Your task to perform on an android device: Open privacy settings Image 0: 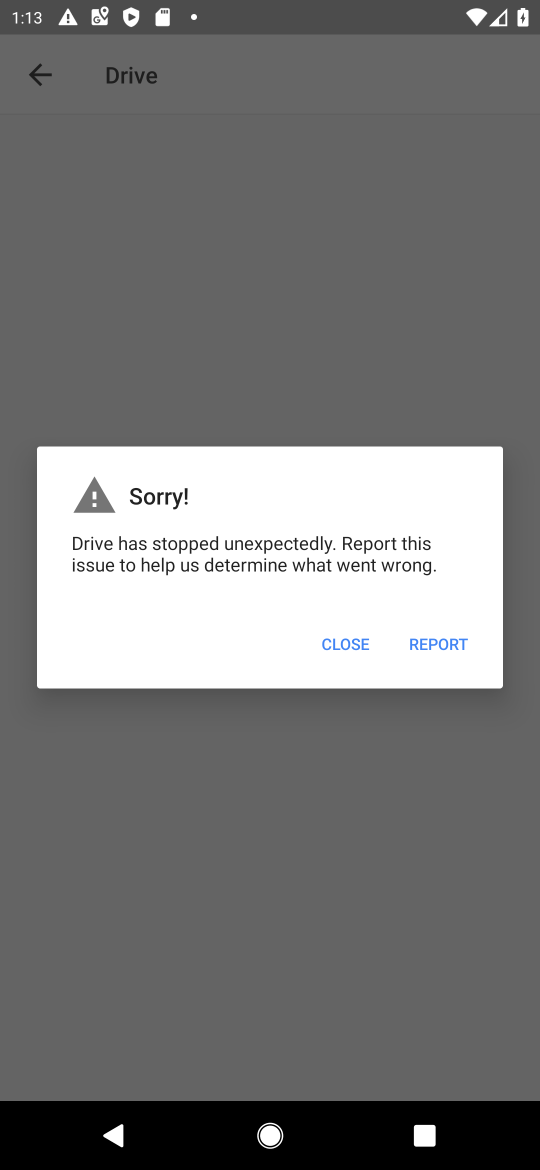
Step 0: press home button
Your task to perform on an android device: Open privacy settings Image 1: 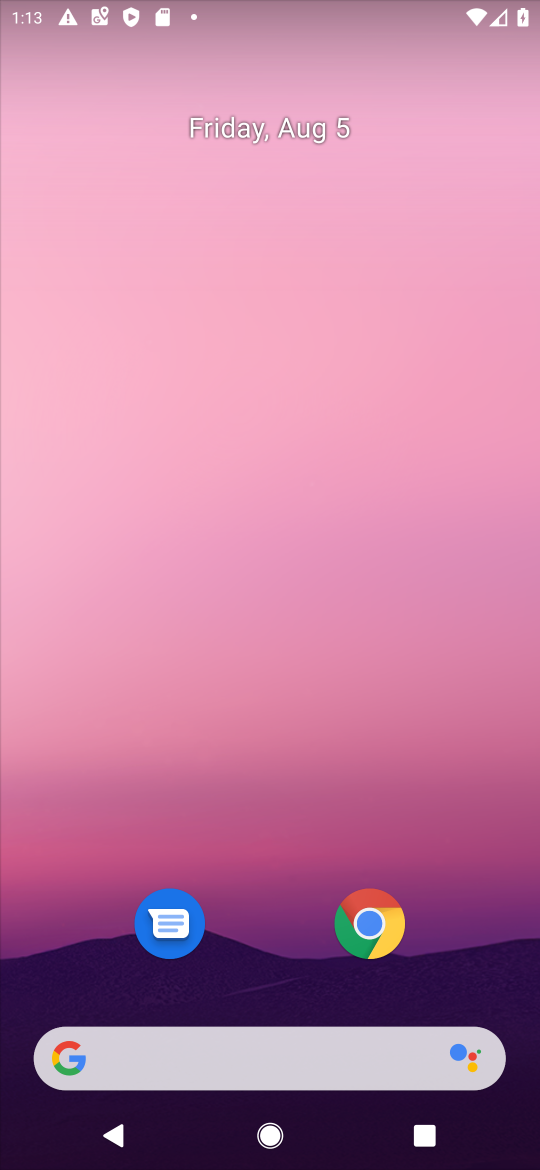
Step 1: drag from (269, 996) to (300, 220)
Your task to perform on an android device: Open privacy settings Image 2: 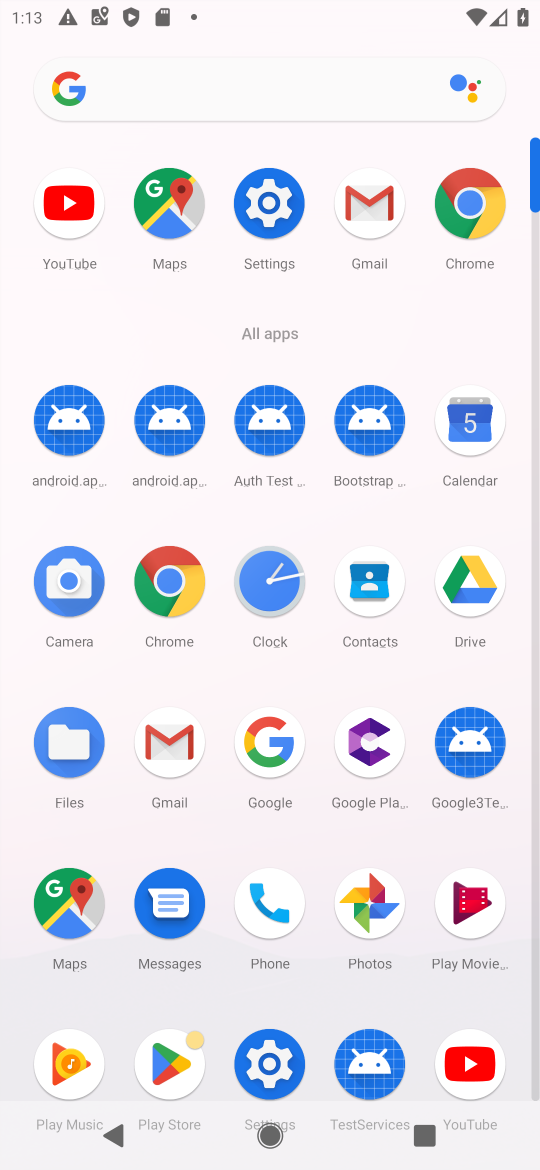
Step 2: click (289, 199)
Your task to perform on an android device: Open privacy settings Image 3: 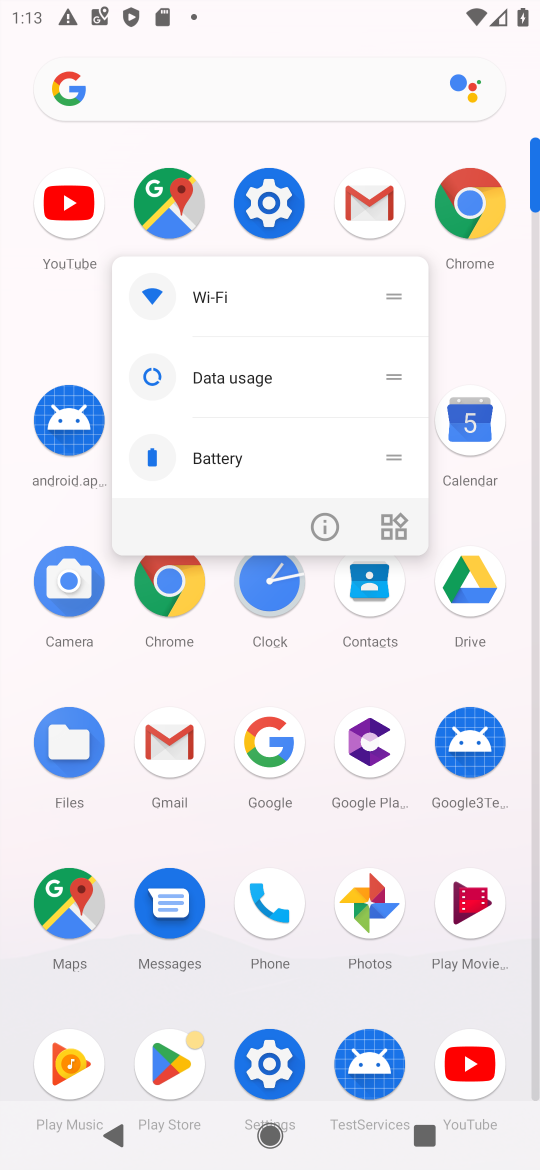
Step 3: click (289, 199)
Your task to perform on an android device: Open privacy settings Image 4: 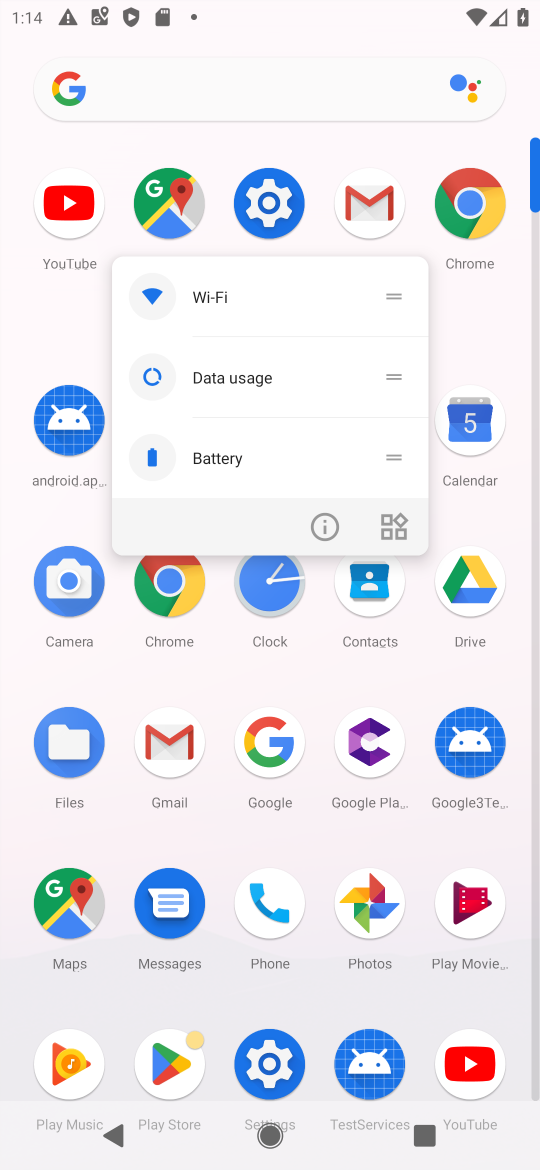
Step 4: click (289, 199)
Your task to perform on an android device: Open privacy settings Image 5: 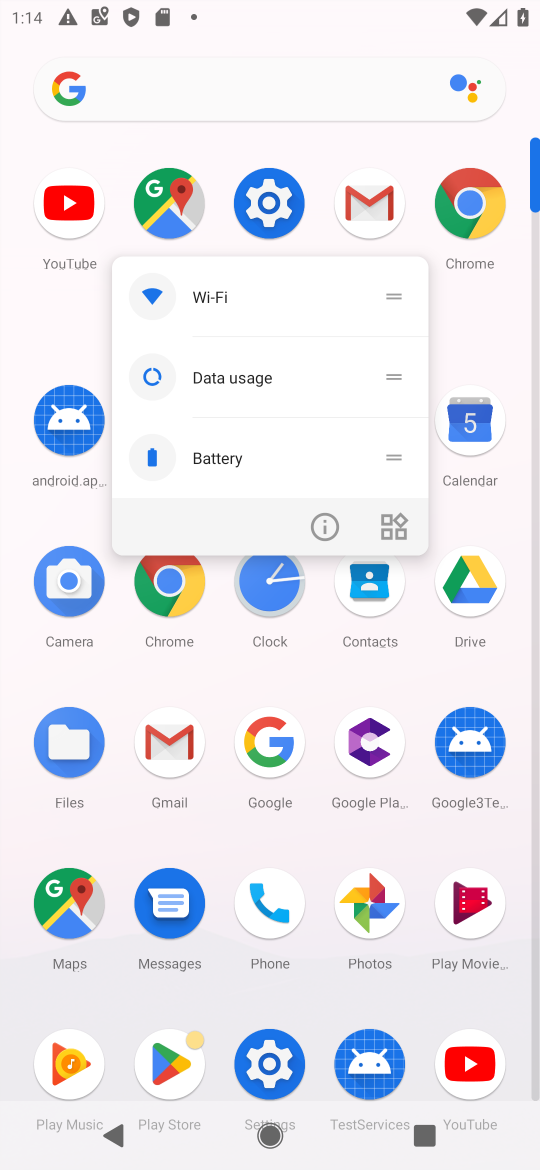
Step 5: click (289, 199)
Your task to perform on an android device: Open privacy settings Image 6: 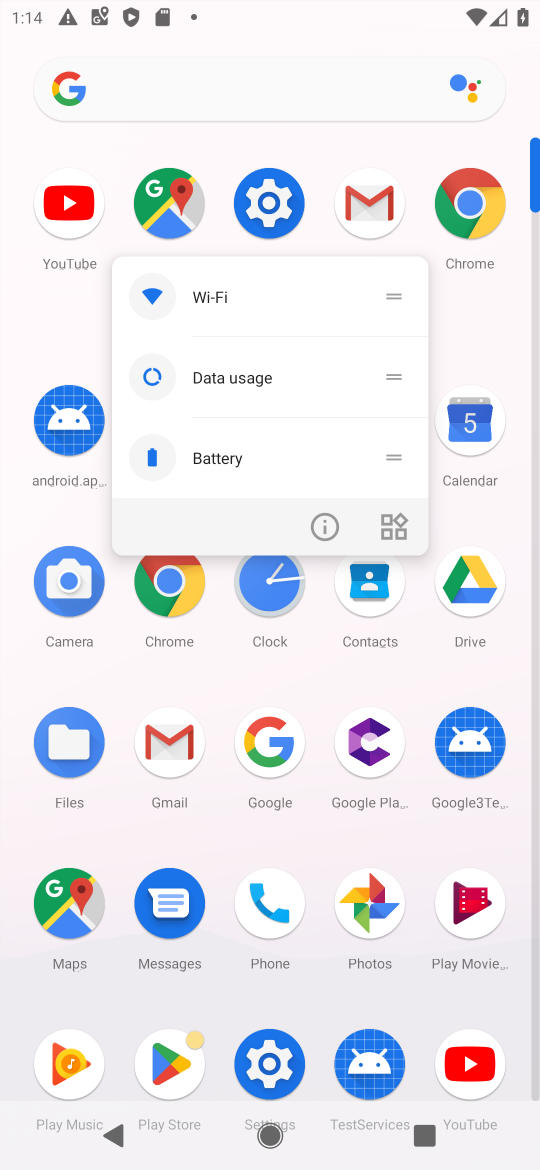
Step 6: click (231, 204)
Your task to perform on an android device: Open privacy settings Image 7: 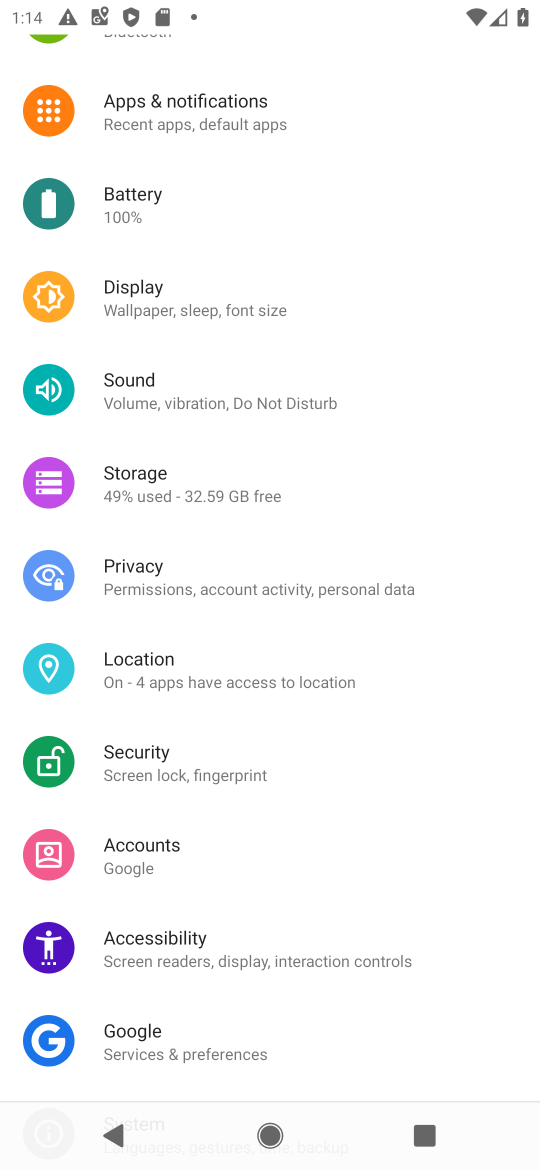
Step 7: click (188, 572)
Your task to perform on an android device: Open privacy settings Image 8: 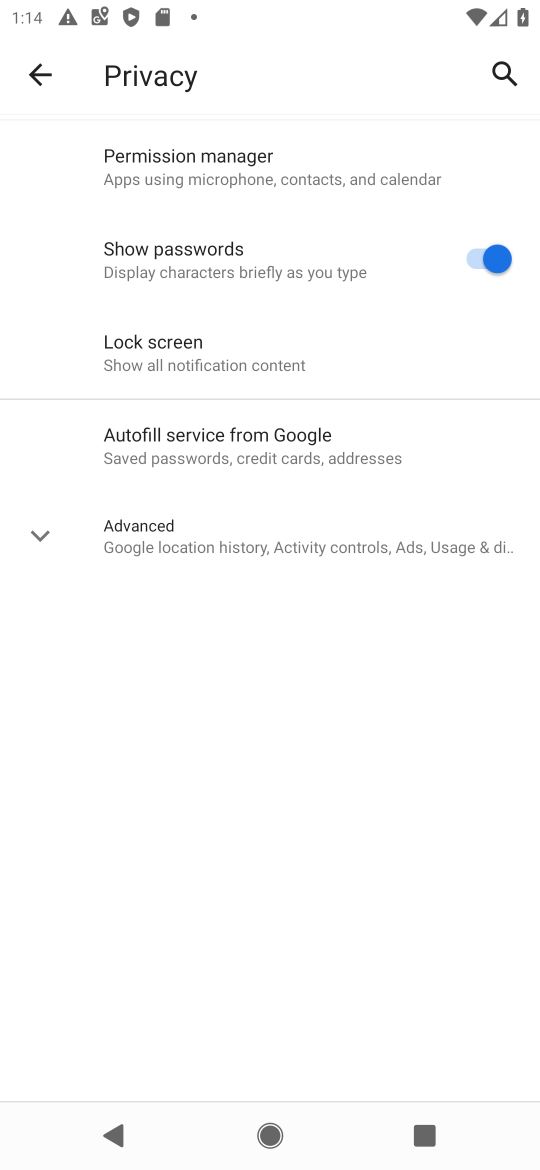
Step 8: task complete